Your task to perform on an android device: When is my next appointment? Image 0: 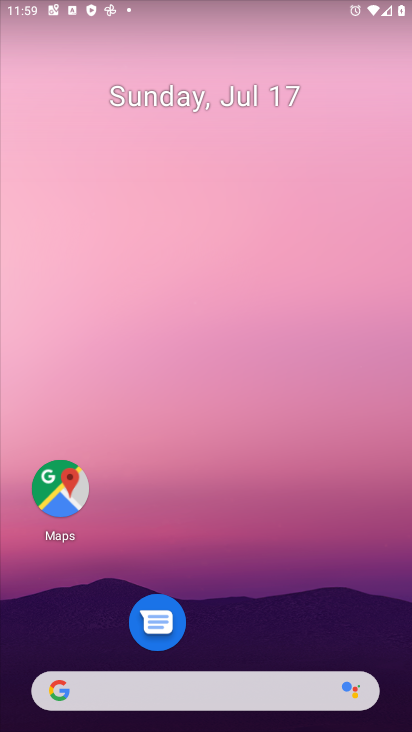
Step 0: drag from (287, 689) to (314, 59)
Your task to perform on an android device: When is my next appointment? Image 1: 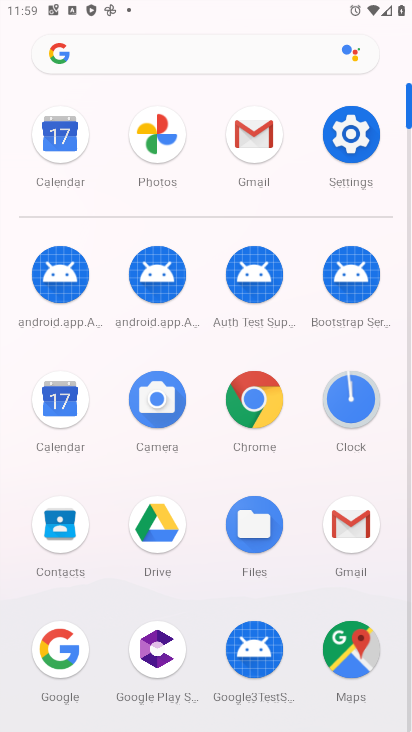
Step 1: click (48, 408)
Your task to perform on an android device: When is my next appointment? Image 2: 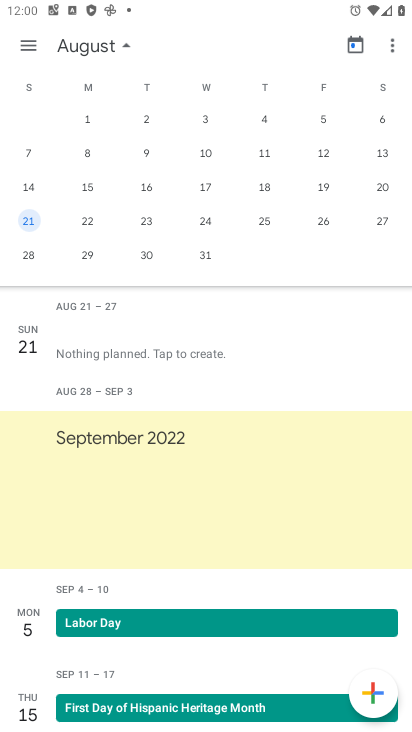
Step 2: task complete